Your task to perform on an android device: turn pop-ups on in chrome Image 0: 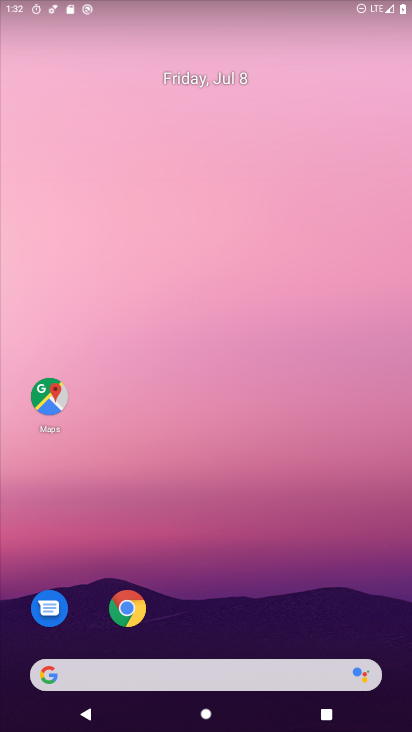
Step 0: click (132, 610)
Your task to perform on an android device: turn pop-ups on in chrome Image 1: 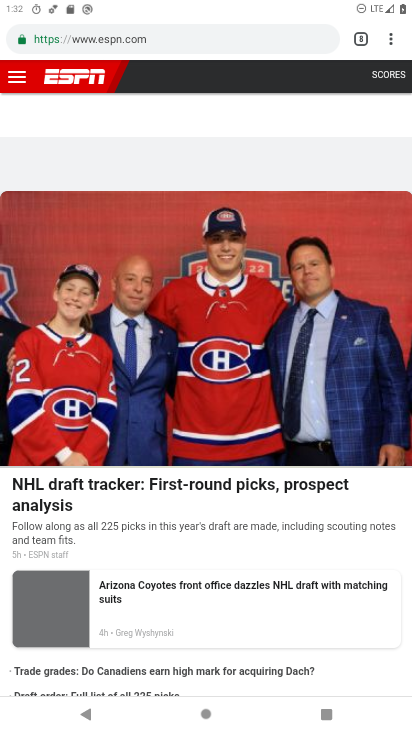
Step 1: click (389, 35)
Your task to perform on an android device: turn pop-ups on in chrome Image 2: 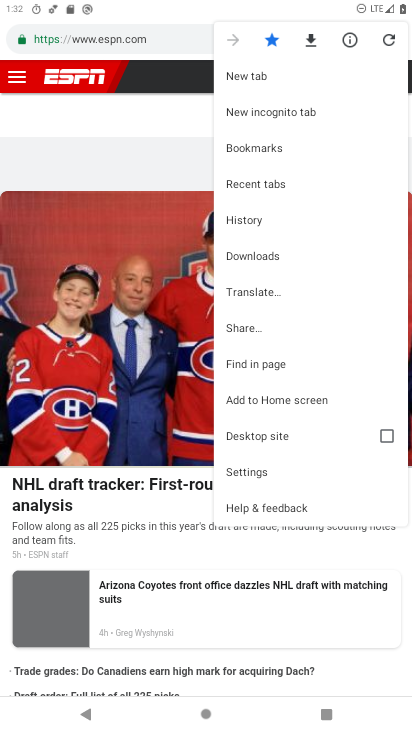
Step 2: click (247, 473)
Your task to perform on an android device: turn pop-ups on in chrome Image 3: 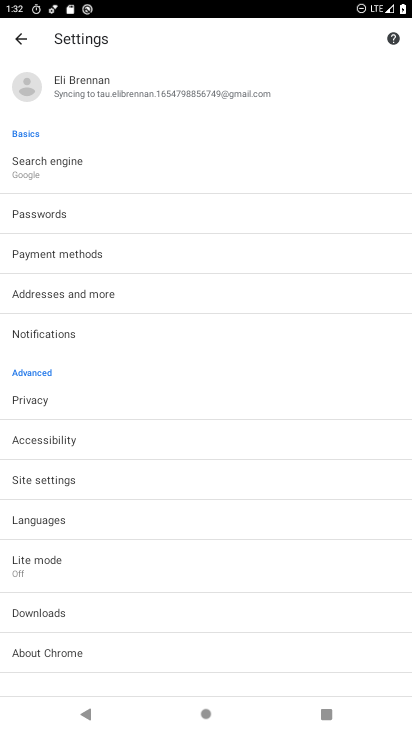
Step 3: click (53, 475)
Your task to perform on an android device: turn pop-ups on in chrome Image 4: 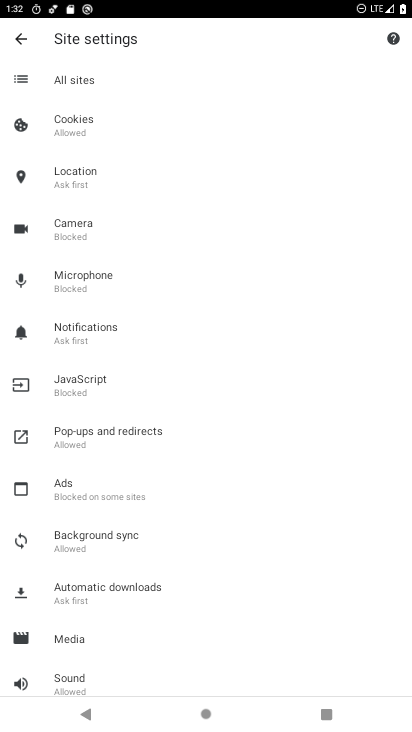
Step 4: click (80, 427)
Your task to perform on an android device: turn pop-ups on in chrome Image 5: 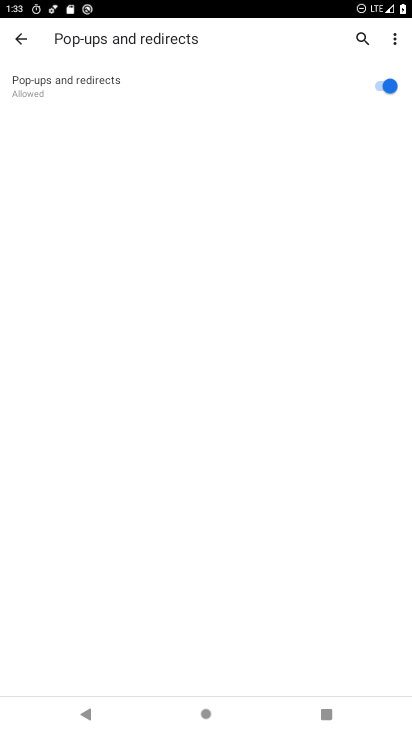
Step 5: click (383, 82)
Your task to perform on an android device: turn pop-ups on in chrome Image 6: 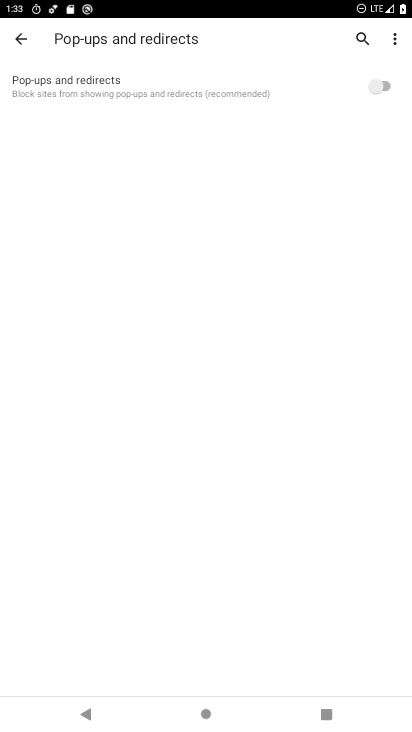
Step 6: click (388, 84)
Your task to perform on an android device: turn pop-ups on in chrome Image 7: 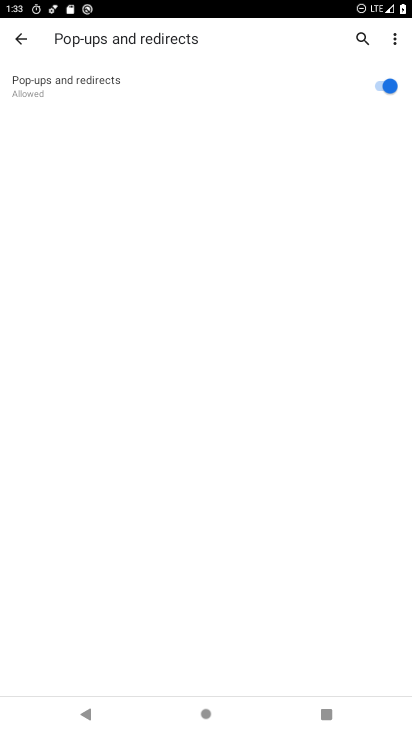
Step 7: task complete